Your task to perform on an android device: turn off wifi Image 0: 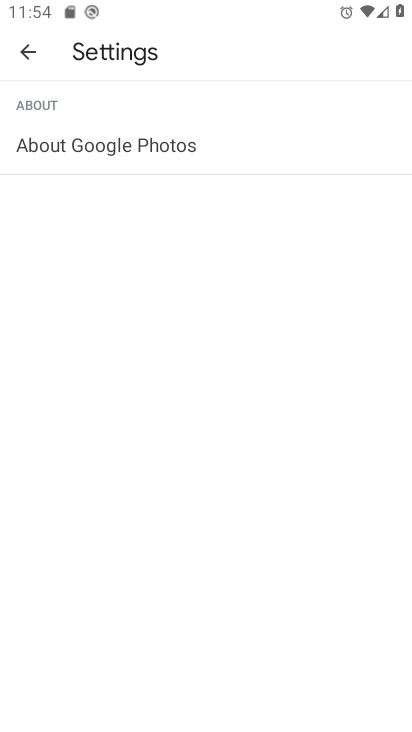
Step 0: click (18, 49)
Your task to perform on an android device: turn off wifi Image 1: 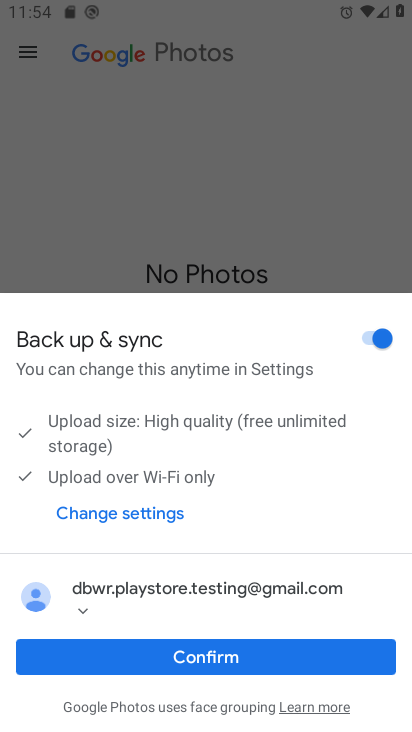
Step 1: click (232, 651)
Your task to perform on an android device: turn off wifi Image 2: 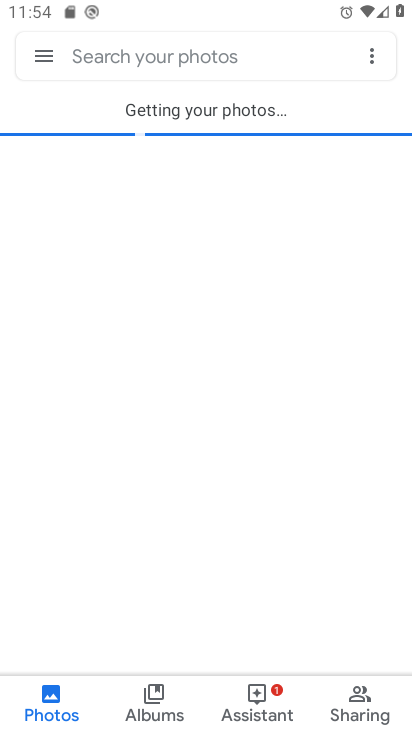
Step 2: press back button
Your task to perform on an android device: turn off wifi Image 3: 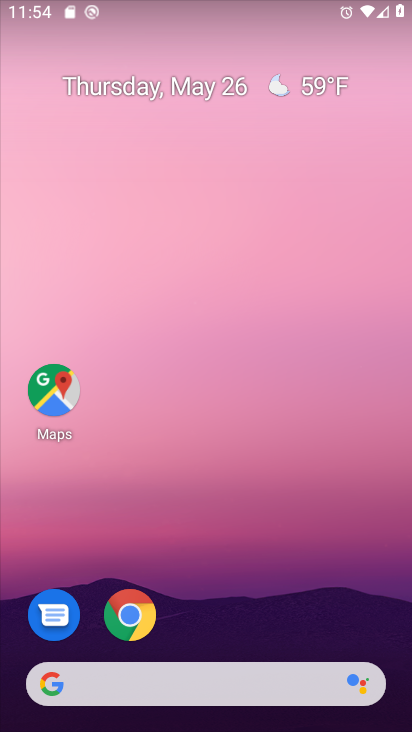
Step 3: drag from (229, 466) to (189, 139)
Your task to perform on an android device: turn off wifi Image 4: 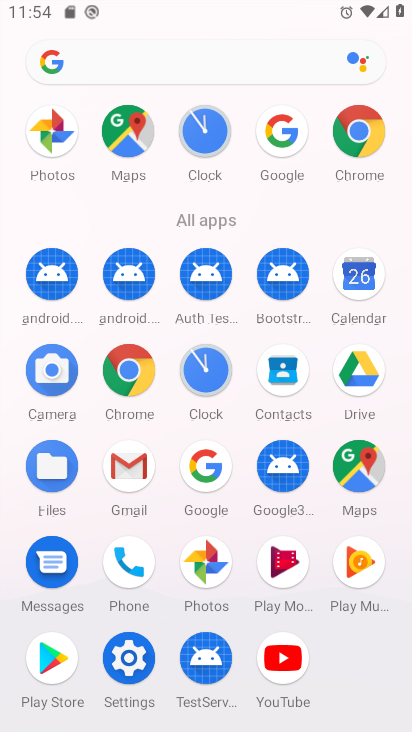
Step 4: click (114, 668)
Your task to perform on an android device: turn off wifi Image 5: 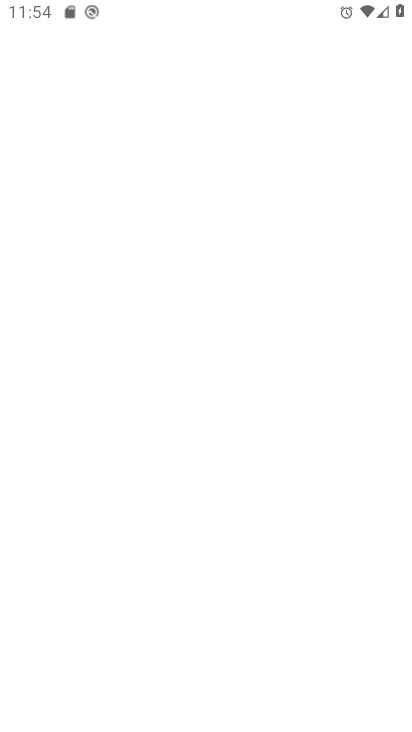
Step 5: click (117, 667)
Your task to perform on an android device: turn off wifi Image 6: 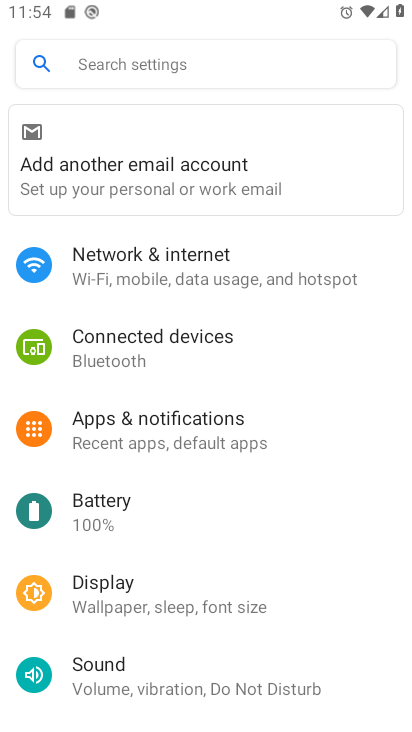
Step 6: click (105, 269)
Your task to perform on an android device: turn off wifi Image 7: 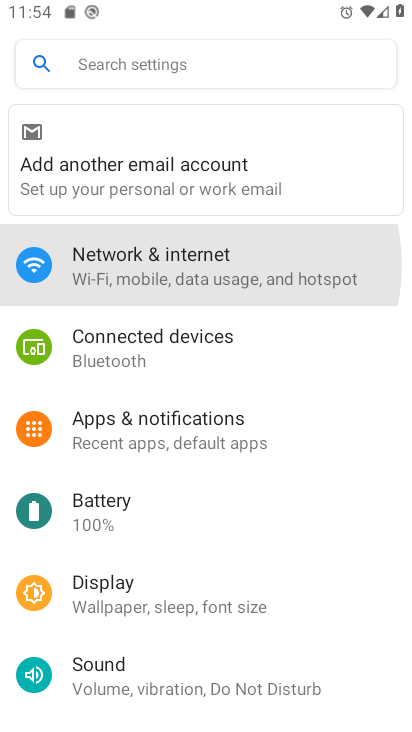
Step 7: click (103, 274)
Your task to perform on an android device: turn off wifi Image 8: 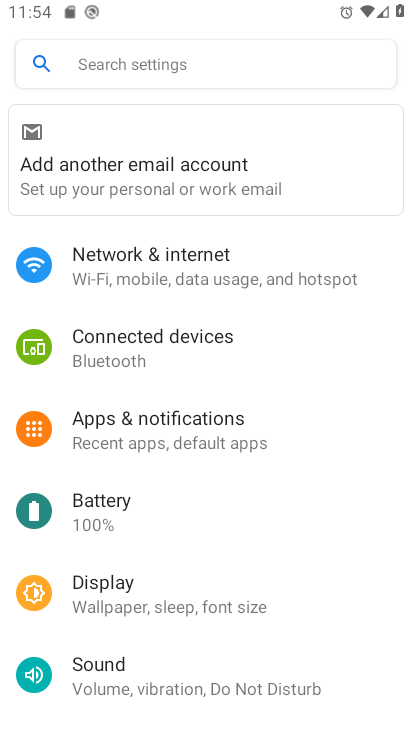
Step 8: click (113, 268)
Your task to perform on an android device: turn off wifi Image 9: 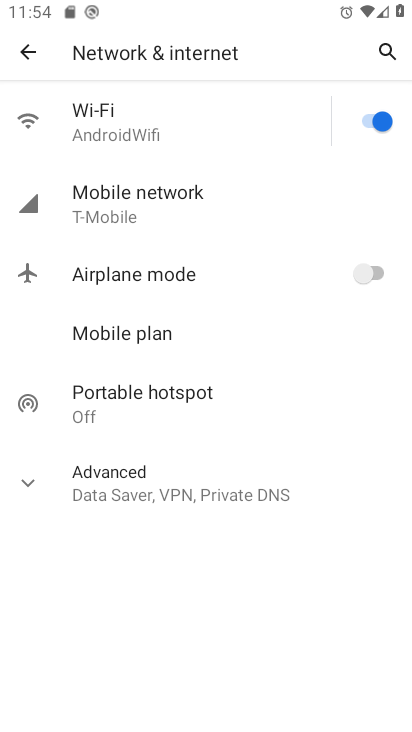
Step 9: click (385, 120)
Your task to perform on an android device: turn off wifi Image 10: 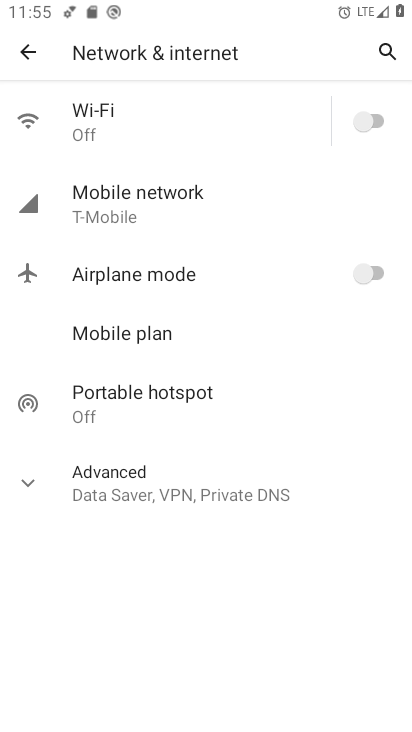
Step 10: task complete